Your task to perform on an android device: Open Chrome and go to the settings page Image 0: 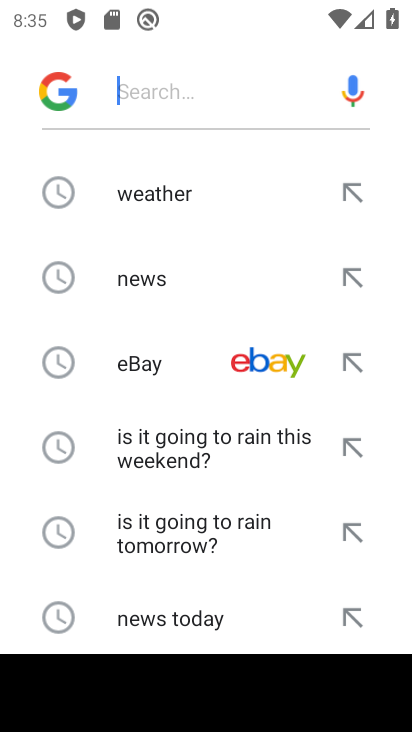
Step 0: press back button
Your task to perform on an android device: Open Chrome and go to the settings page Image 1: 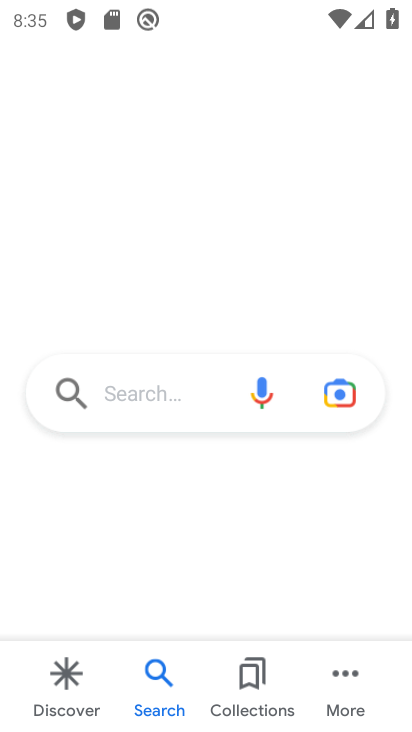
Step 1: press home button
Your task to perform on an android device: Open Chrome and go to the settings page Image 2: 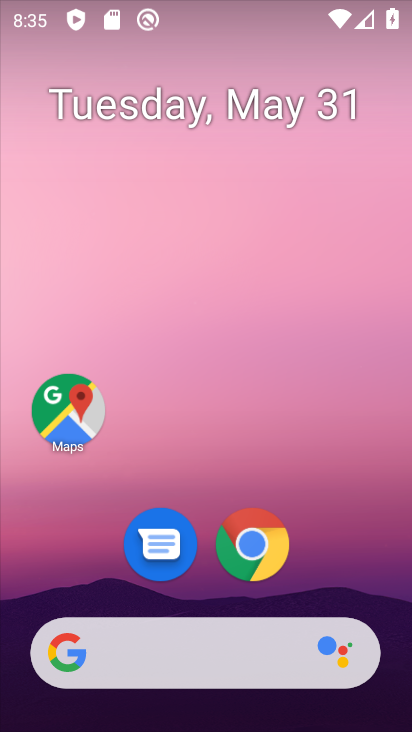
Step 2: click (271, 542)
Your task to perform on an android device: Open Chrome and go to the settings page Image 3: 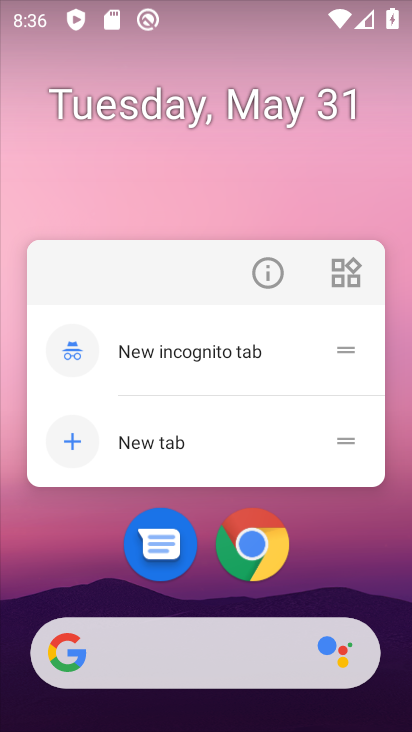
Step 3: click (270, 550)
Your task to perform on an android device: Open Chrome and go to the settings page Image 4: 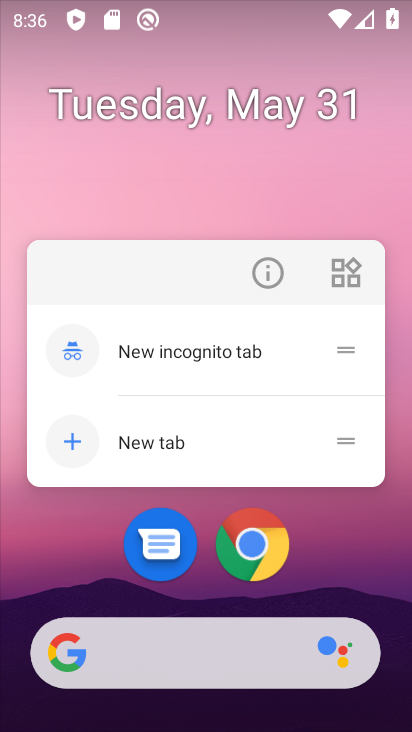
Step 4: click (270, 550)
Your task to perform on an android device: Open Chrome and go to the settings page Image 5: 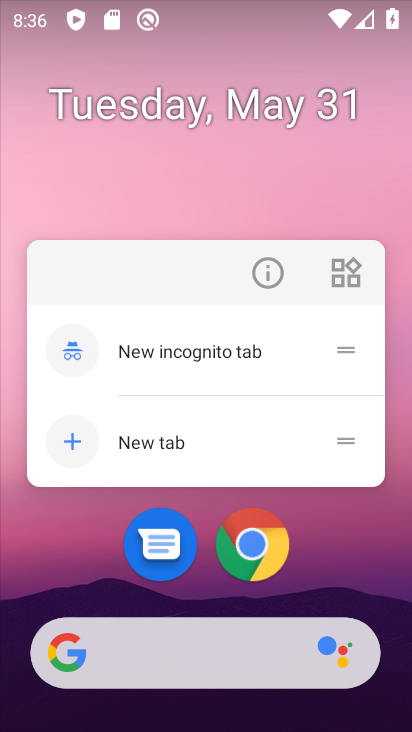
Step 5: click (260, 527)
Your task to perform on an android device: Open Chrome and go to the settings page Image 6: 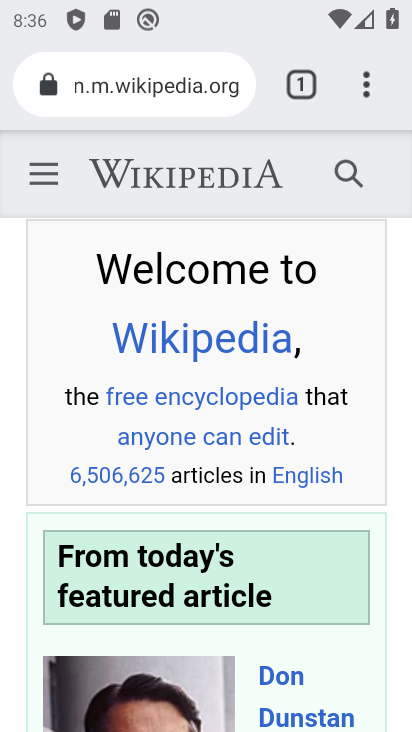
Step 6: task complete